Your task to perform on an android device: set default search engine in the chrome app Image 0: 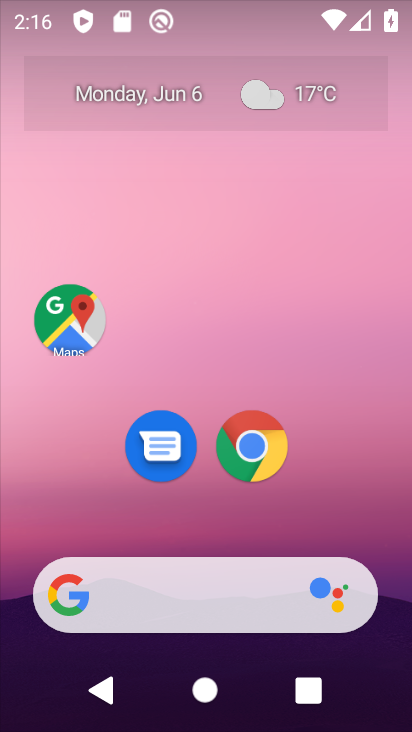
Step 0: click (254, 436)
Your task to perform on an android device: set default search engine in the chrome app Image 1: 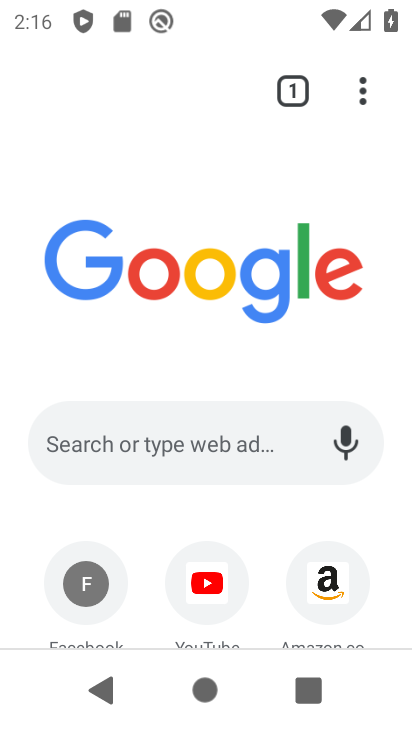
Step 1: drag from (364, 78) to (88, 471)
Your task to perform on an android device: set default search engine in the chrome app Image 2: 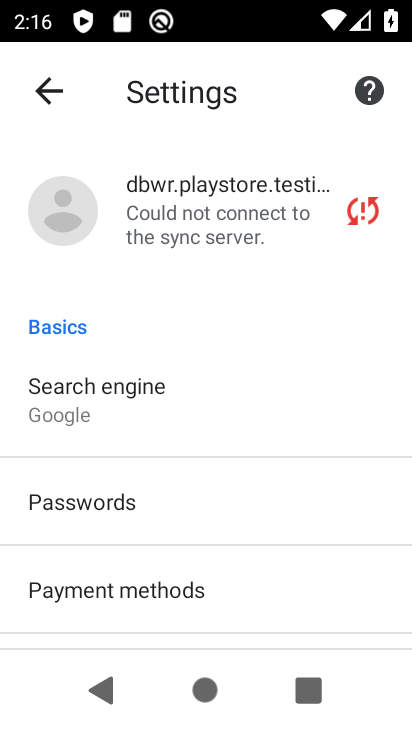
Step 2: drag from (136, 580) to (238, 138)
Your task to perform on an android device: set default search engine in the chrome app Image 3: 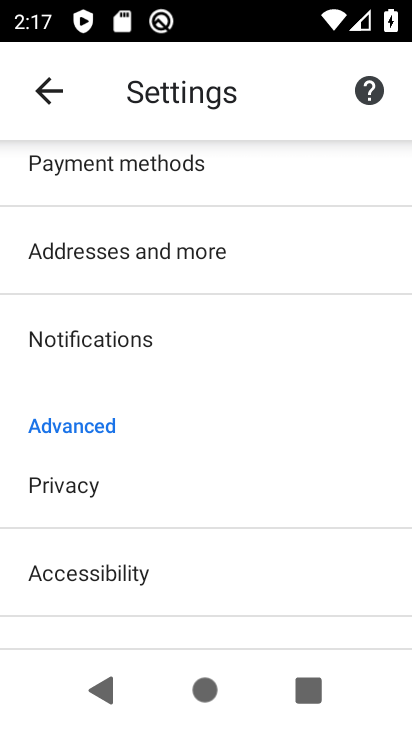
Step 3: drag from (243, 317) to (191, 639)
Your task to perform on an android device: set default search engine in the chrome app Image 4: 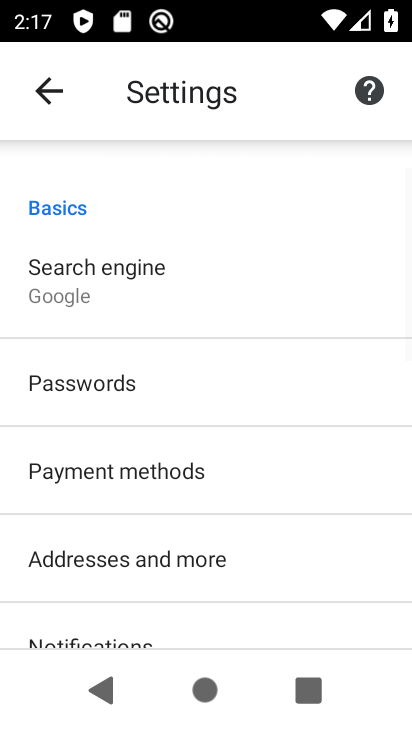
Step 4: drag from (209, 222) to (172, 633)
Your task to perform on an android device: set default search engine in the chrome app Image 5: 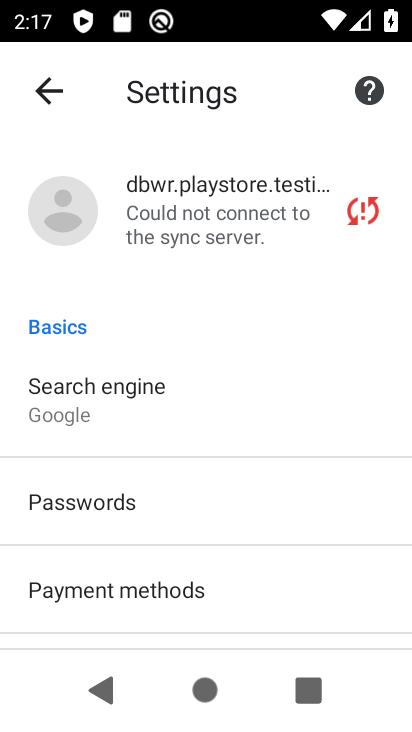
Step 5: click (84, 425)
Your task to perform on an android device: set default search engine in the chrome app Image 6: 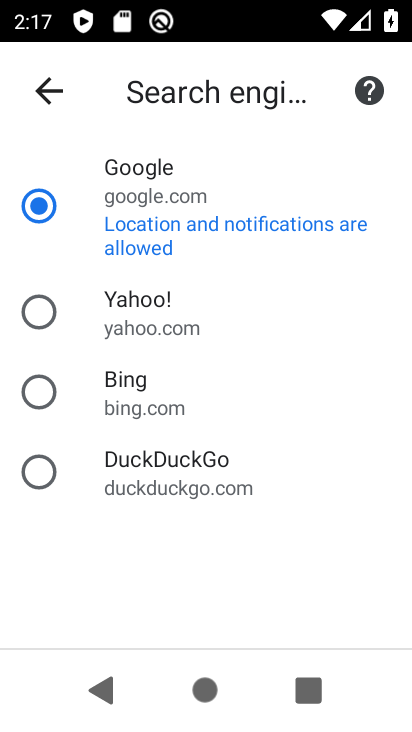
Step 6: click (43, 294)
Your task to perform on an android device: set default search engine in the chrome app Image 7: 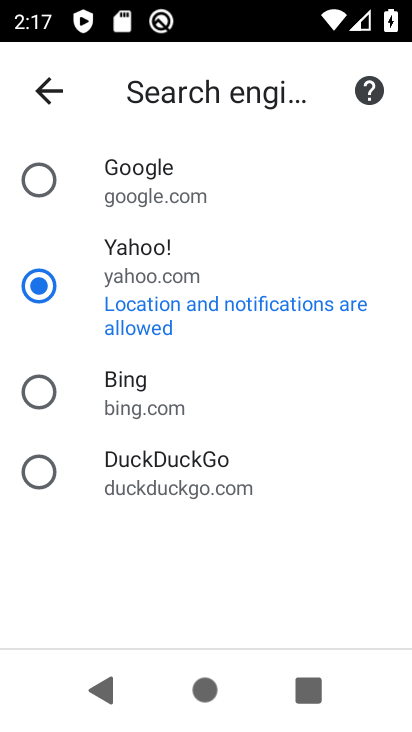
Step 7: task complete